Your task to perform on an android device: read, delete, or share a saved page in the chrome app Image 0: 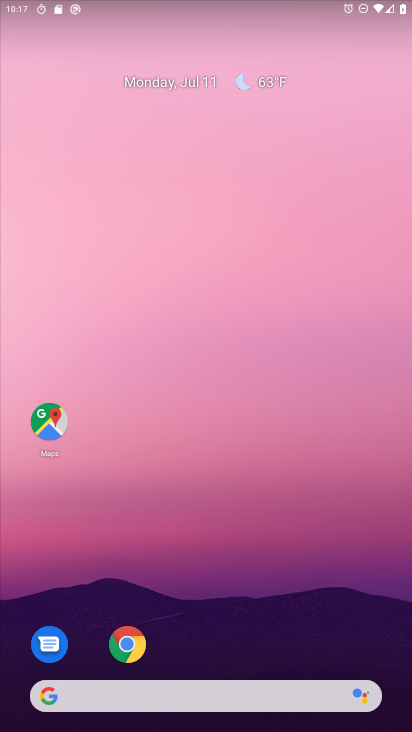
Step 0: click (127, 641)
Your task to perform on an android device: read, delete, or share a saved page in the chrome app Image 1: 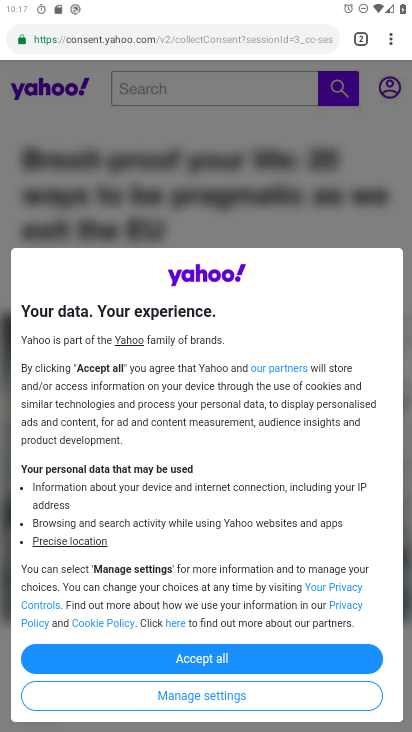
Step 1: drag from (388, 31) to (254, 271)
Your task to perform on an android device: read, delete, or share a saved page in the chrome app Image 2: 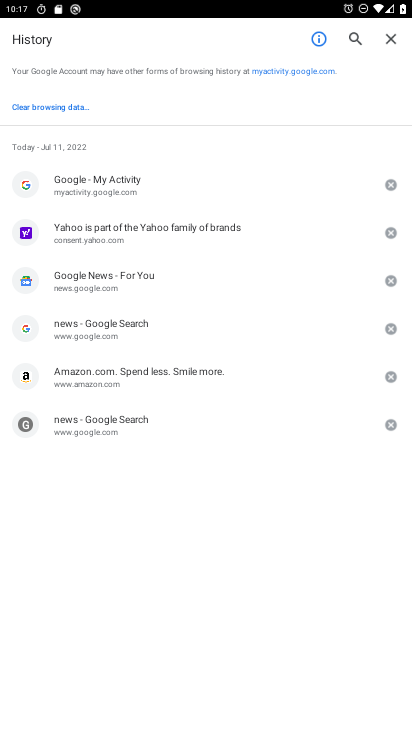
Step 2: click (61, 108)
Your task to perform on an android device: read, delete, or share a saved page in the chrome app Image 3: 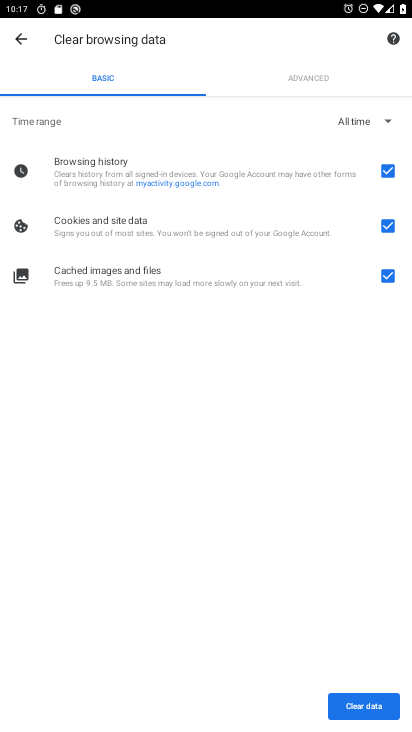
Step 3: click (375, 715)
Your task to perform on an android device: read, delete, or share a saved page in the chrome app Image 4: 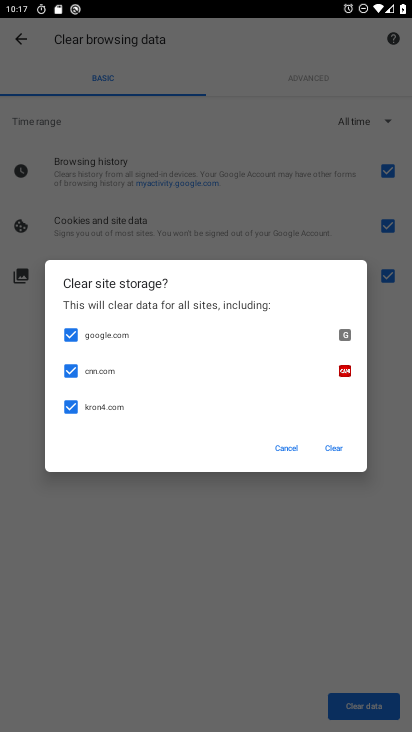
Step 4: click (336, 443)
Your task to perform on an android device: read, delete, or share a saved page in the chrome app Image 5: 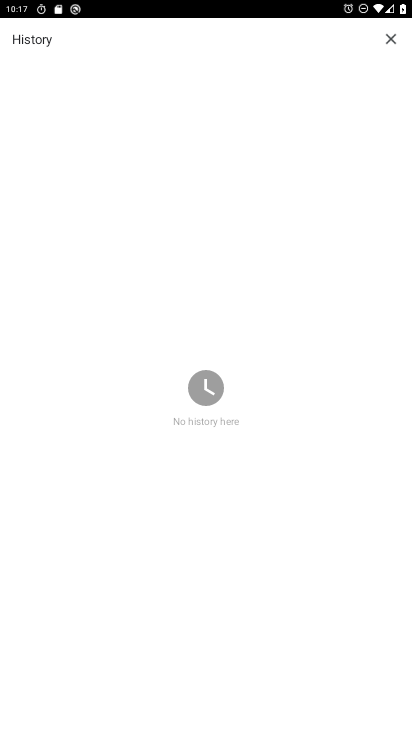
Step 5: task complete